Your task to perform on an android device: Open the stopwatch Image 0: 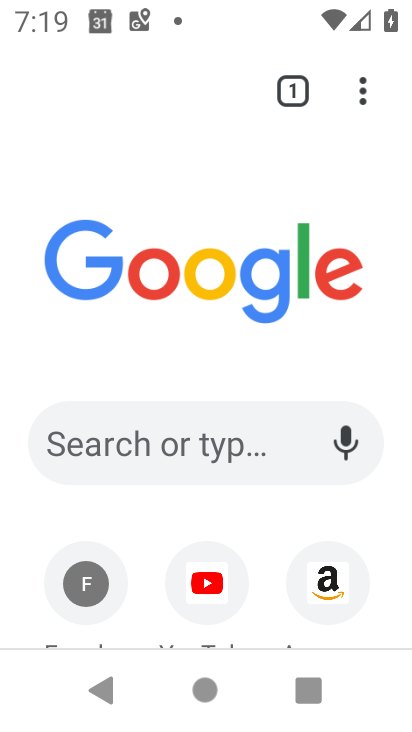
Step 0: press home button
Your task to perform on an android device: Open the stopwatch Image 1: 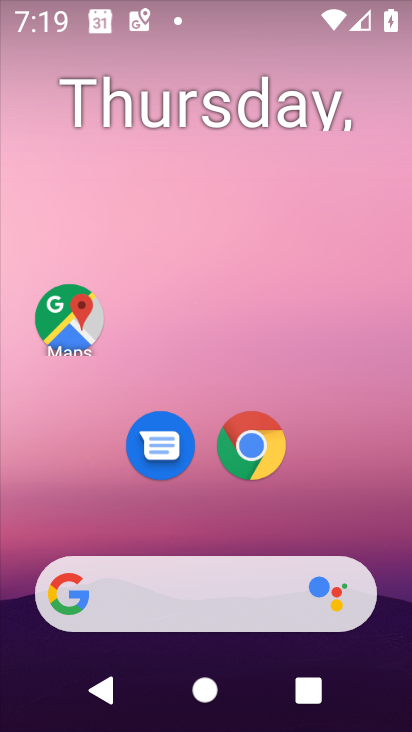
Step 1: drag from (411, 525) to (325, 19)
Your task to perform on an android device: Open the stopwatch Image 2: 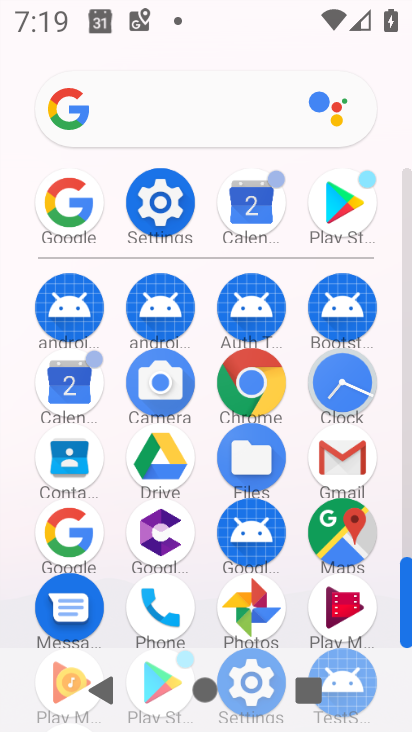
Step 2: click (331, 389)
Your task to perform on an android device: Open the stopwatch Image 3: 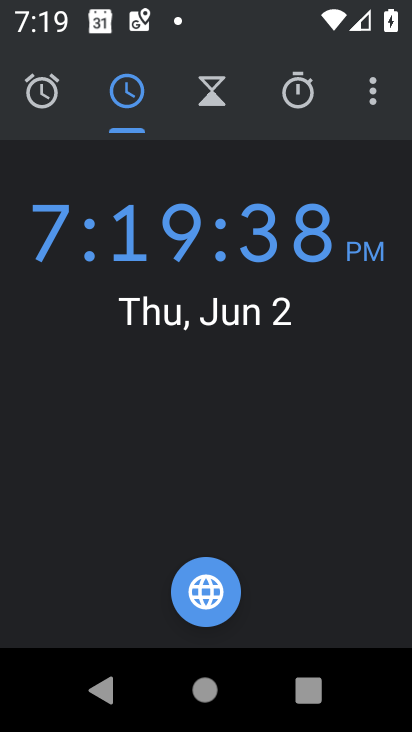
Step 3: click (297, 84)
Your task to perform on an android device: Open the stopwatch Image 4: 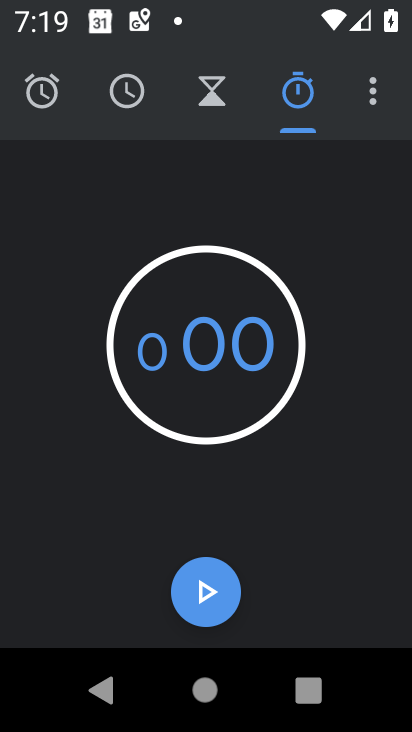
Step 4: task complete